Your task to perform on an android device: turn off notifications in google photos Image 0: 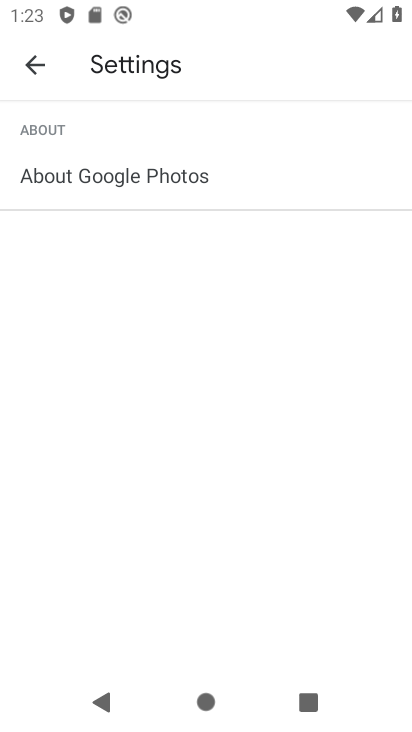
Step 0: press home button
Your task to perform on an android device: turn off notifications in google photos Image 1: 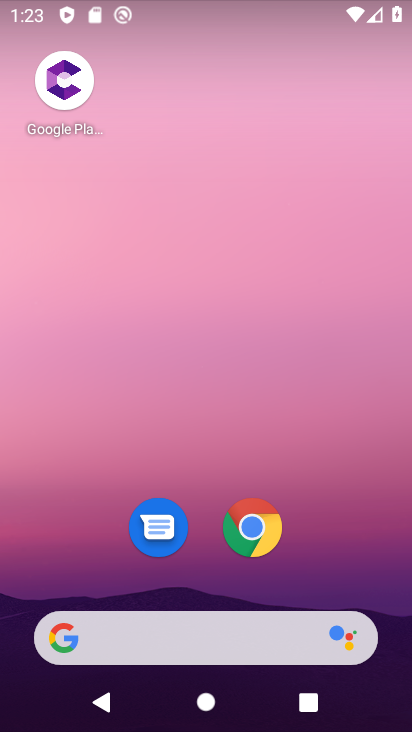
Step 1: drag from (391, 621) to (263, 62)
Your task to perform on an android device: turn off notifications in google photos Image 2: 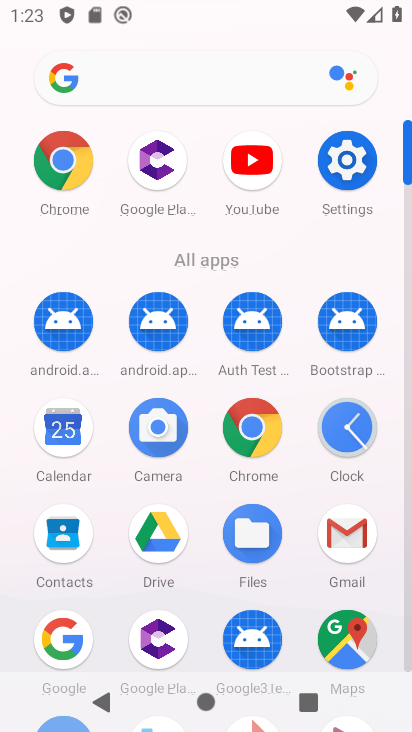
Step 2: click (409, 670)
Your task to perform on an android device: turn off notifications in google photos Image 3: 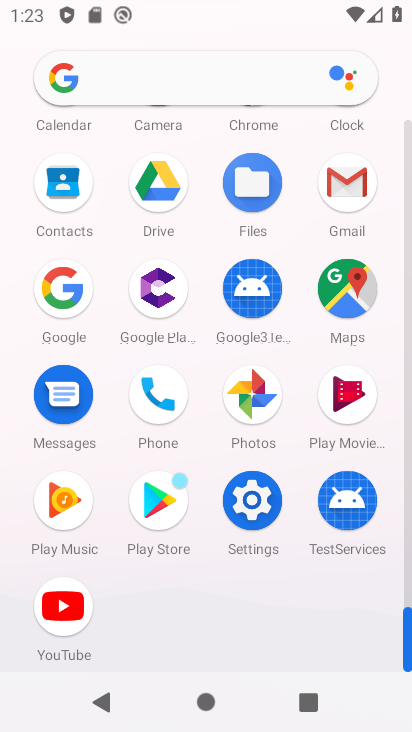
Step 3: click (251, 408)
Your task to perform on an android device: turn off notifications in google photos Image 4: 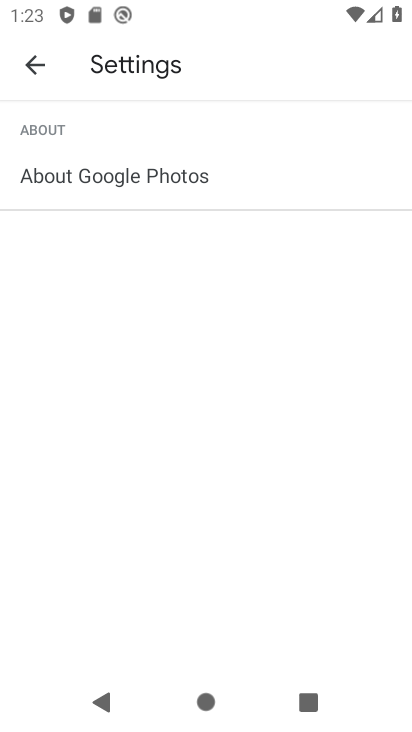
Step 4: press back button
Your task to perform on an android device: turn off notifications in google photos Image 5: 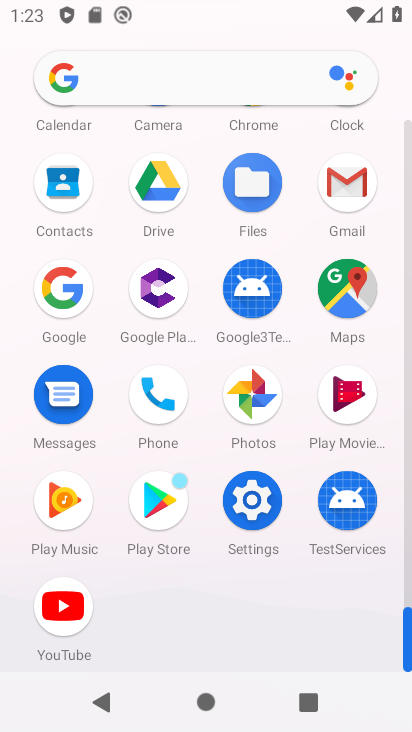
Step 5: click (267, 405)
Your task to perform on an android device: turn off notifications in google photos Image 6: 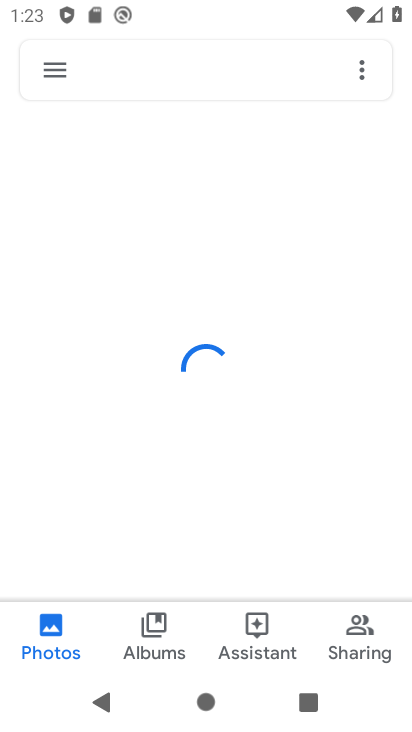
Step 6: click (48, 66)
Your task to perform on an android device: turn off notifications in google photos Image 7: 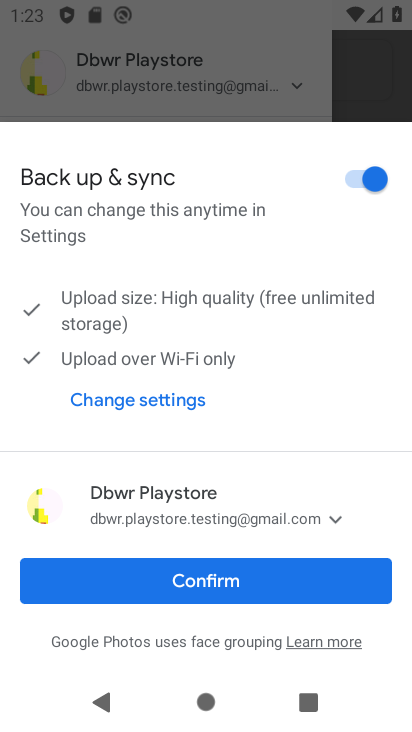
Step 7: click (177, 571)
Your task to perform on an android device: turn off notifications in google photos Image 8: 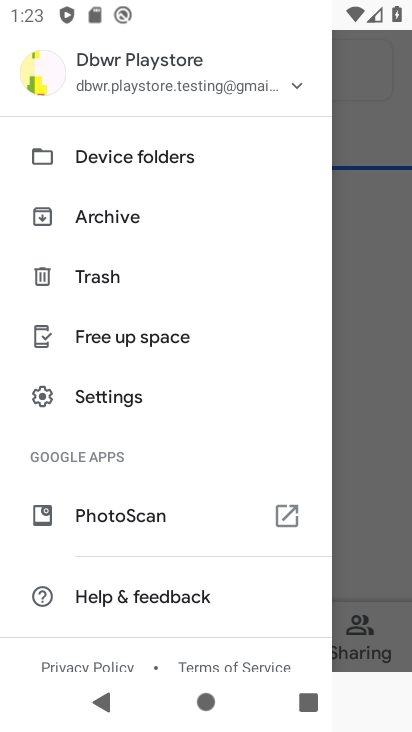
Step 8: click (142, 402)
Your task to perform on an android device: turn off notifications in google photos Image 9: 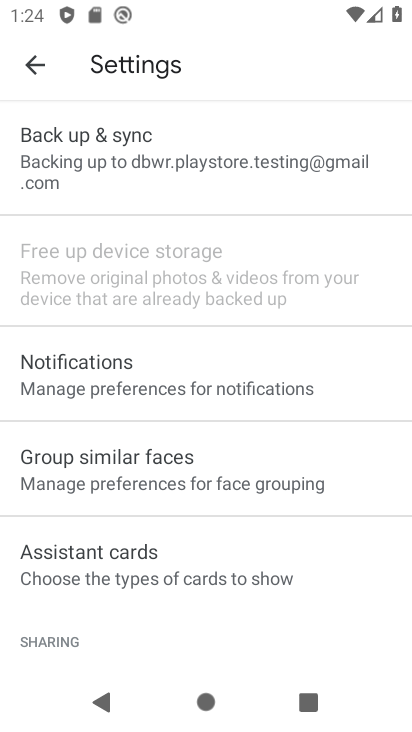
Step 9: click (203, 392)
Your task to perform on an android device: turn off notifications in google photos Image 10: 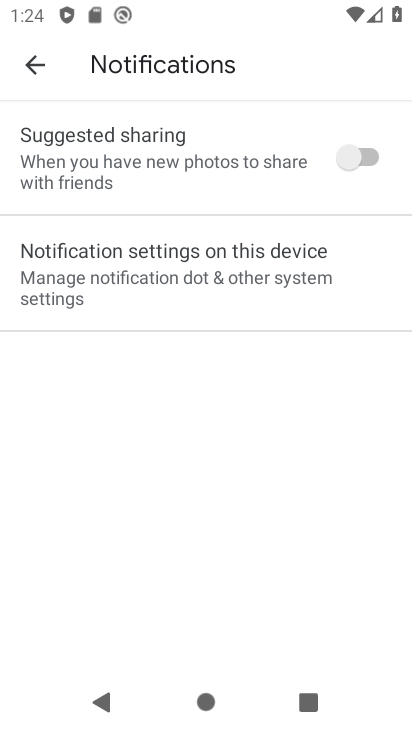
Step 10: task complete